Your task to perform on an android device: star an email in the gmail app Image 0: 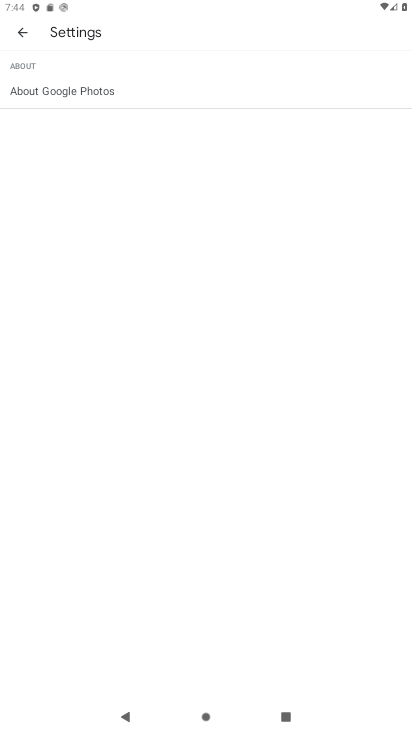
Step 0: press home button
Your task to perform on an android device: star an email in the gmail app Image 1: 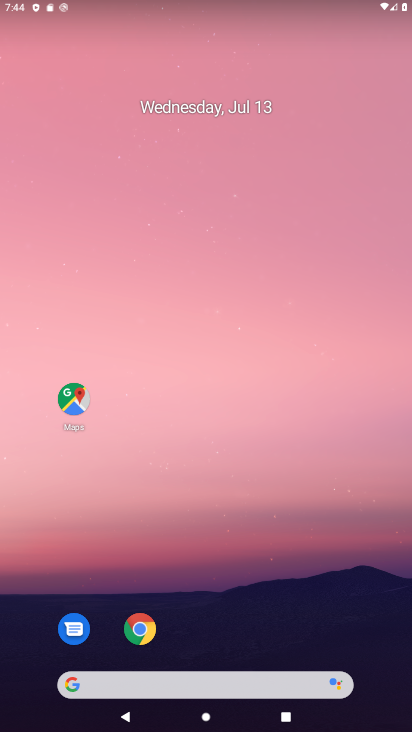
Step 1: drag from (245, 519) to (164, 0)
Your task to perform on an android device: star an email in the gmail app Image 2: 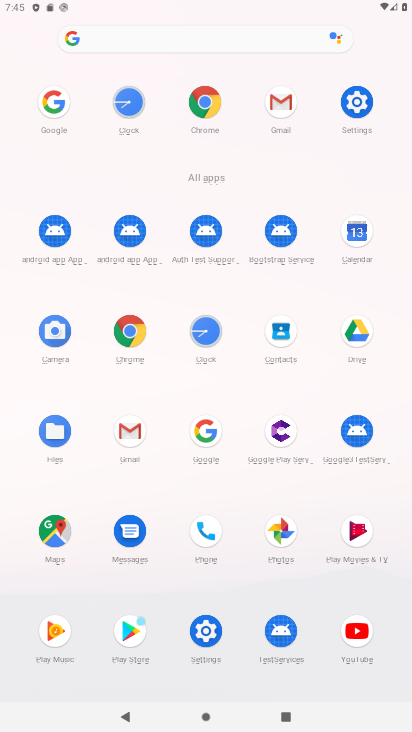
Step 2: click (277, 120)
Your task to perform on an android device: star an email in the gmail app Image 3: 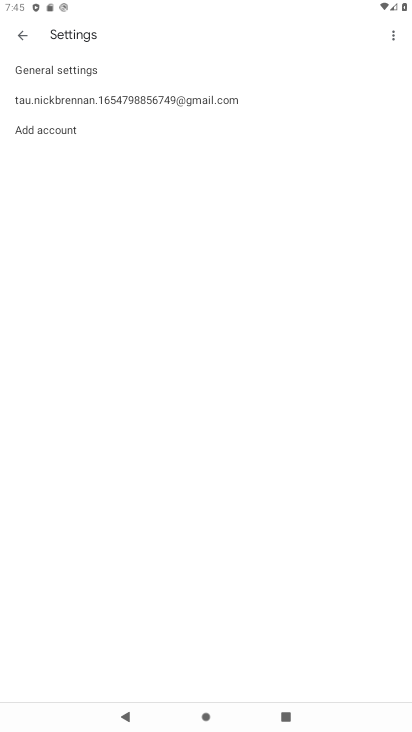
Step 3: click (31, 41)
Your task to perform on an android device: star an email in the gmail app Image 4: 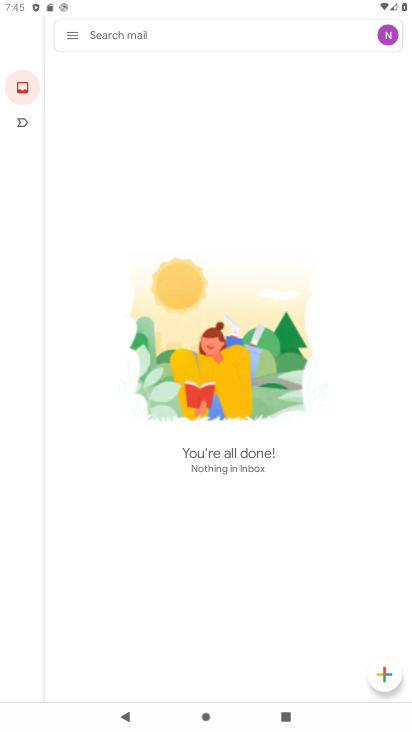
Step 4: task complete